Your task to perform on an android device: toggle wifi Image 0: 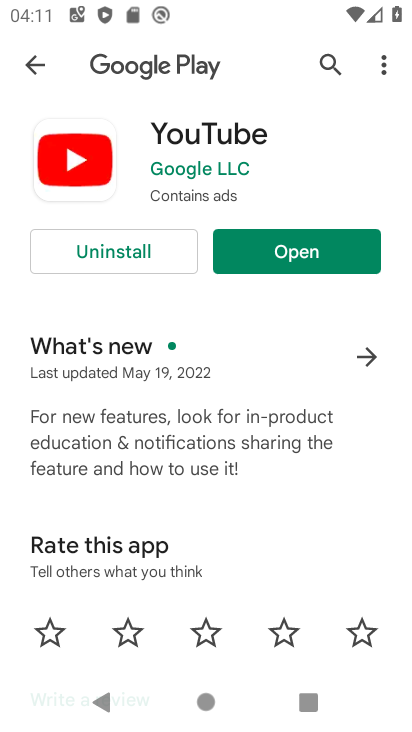
Step 0: press home button
Your task to perform on an android device: toggle wifi Image 1: 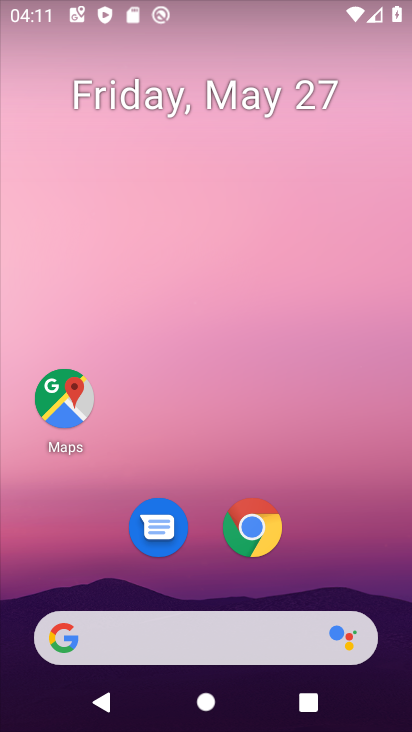
Step 1: drag from (178, 0) to (173, 447)
Your task to perform on an android device: toggle wifi Image 2: 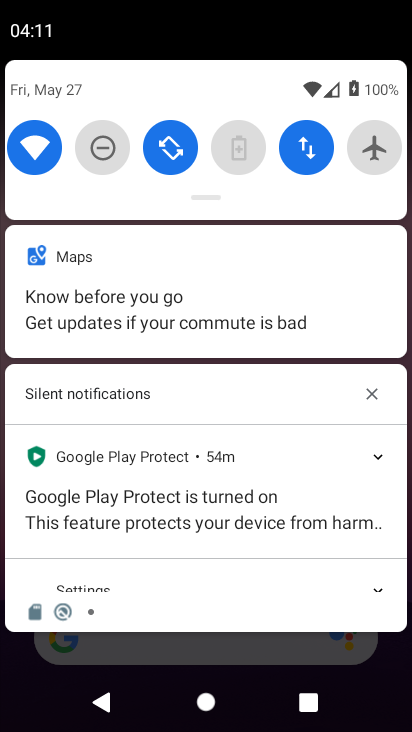
Step 2: click (43, 140)
Your task to perform on an android device: toggle wifi Image 3: 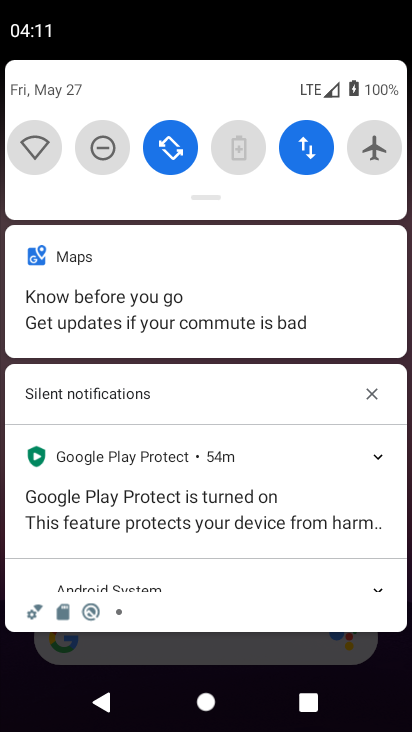
Step 3: task complete